Your task to perform on an android device: all mails in gmail Image 0: 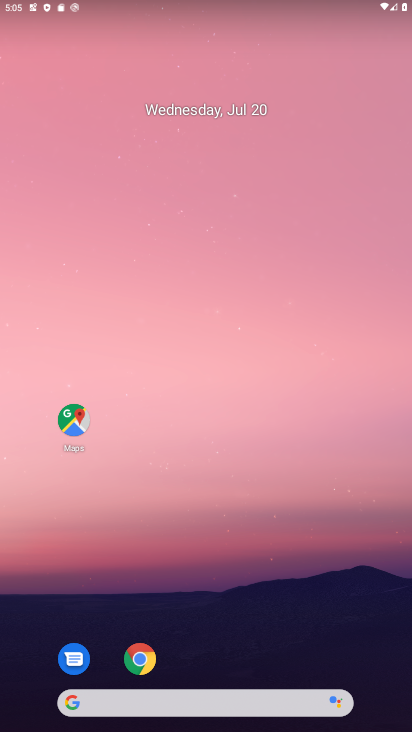
Step 0: drag from (224, 652) to (224, 157)
Your task to perform on an android device: all mails in gmail Image 1: 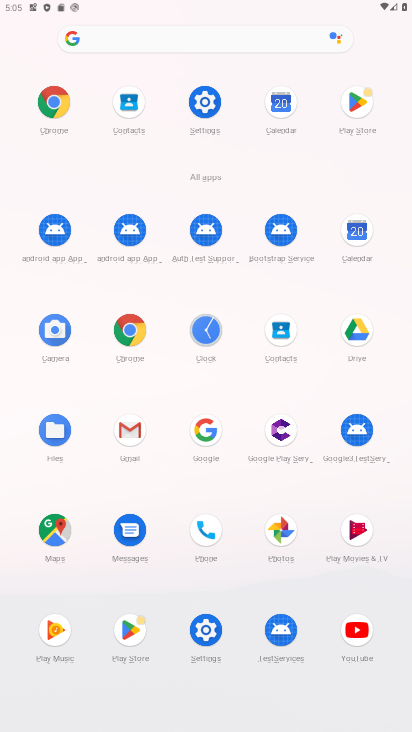
Step 1: click (132, 437)
Your task to perform on an android device: all mails in gmail Image 2: 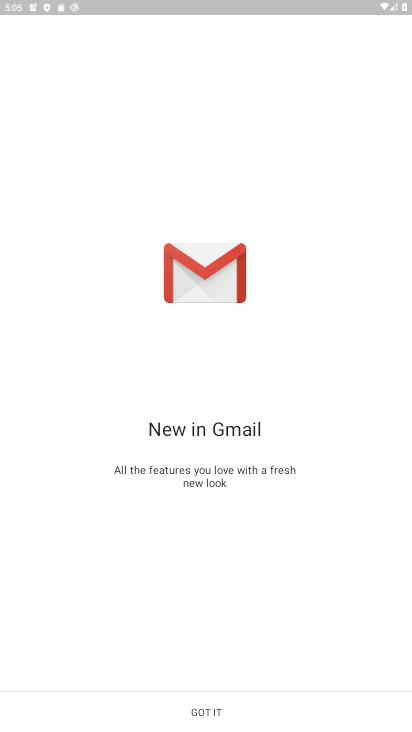
Step 2: click (218, 709)
Your task to perform on an android device: all mails in gmail Image 3: 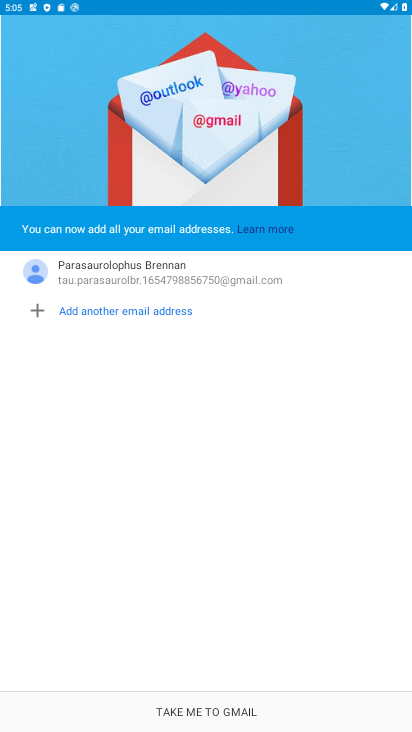
Step 3: click (208, 712)
Your task to perform on an android device: all mails in gmail Image 4: 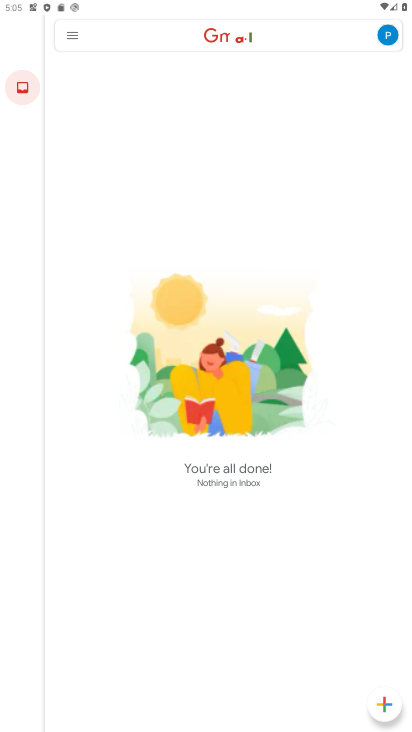
Step 4: click (62, 39)
Your task to perform on an android device: all mails in gmail Image 5: 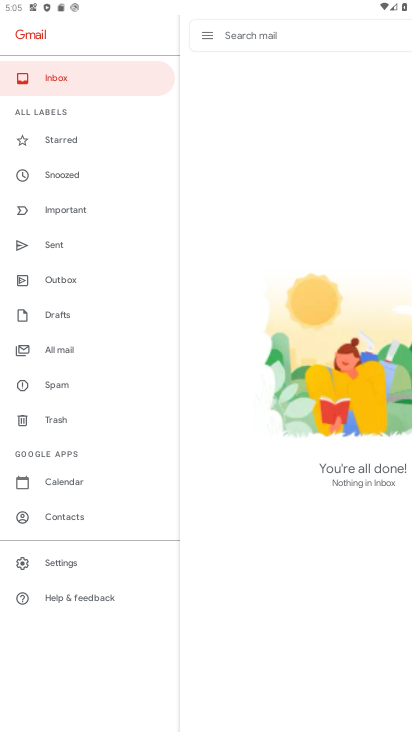
Step 5: click (56, 351)
Your task to perform on an android device: all mails in gmail Image 6: 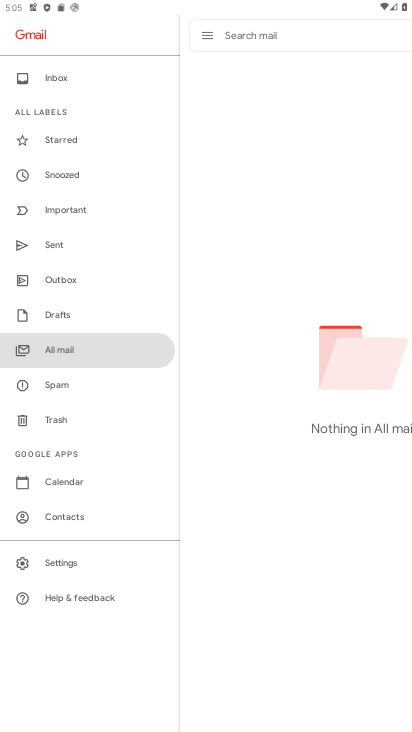
Step 6: task complete